Your task to perform on an android device: set the timer Image 0: 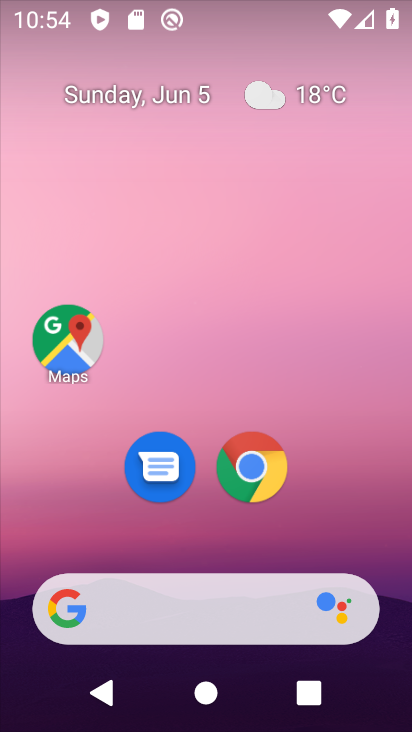
Step 0: drag from (202, 535) to (191, 76)
Your task to perform on an android device: set the timer Image 1: 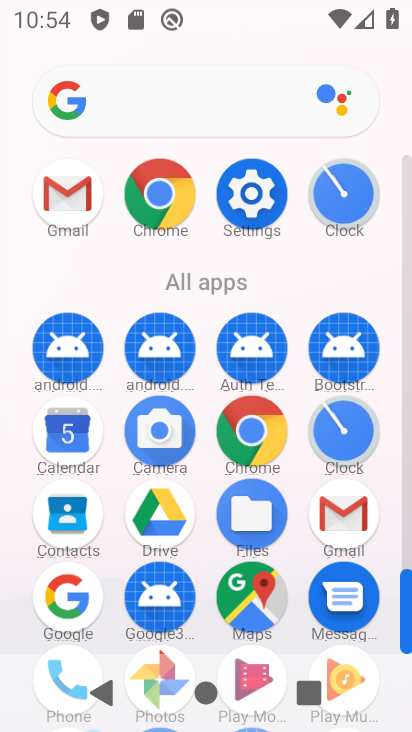
Step 1: click (355, 435)
Your task to perform on an android device: set the timer Image 2: 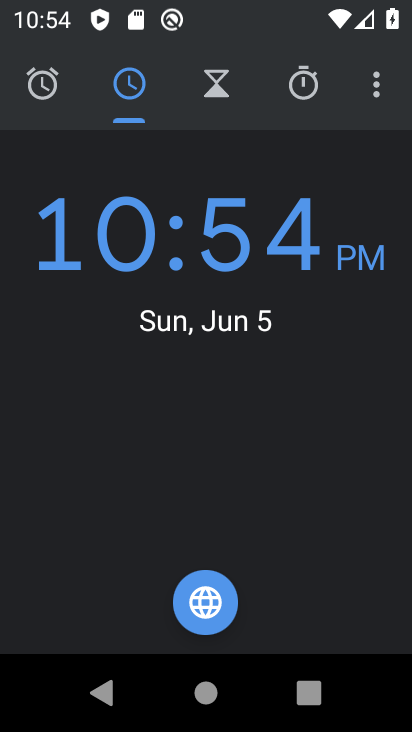
Step 2: click (385, 95)
Your task to perform on an android device: set the timer Image 3: 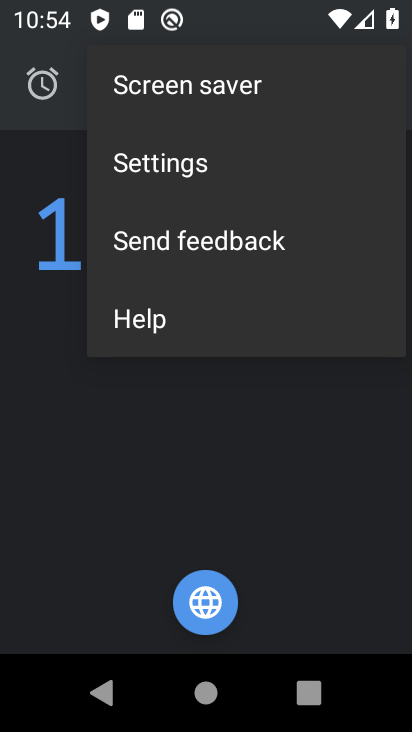
Step 3: click (201, 164)
Your task to perform on an android device: set the timer Image 4: 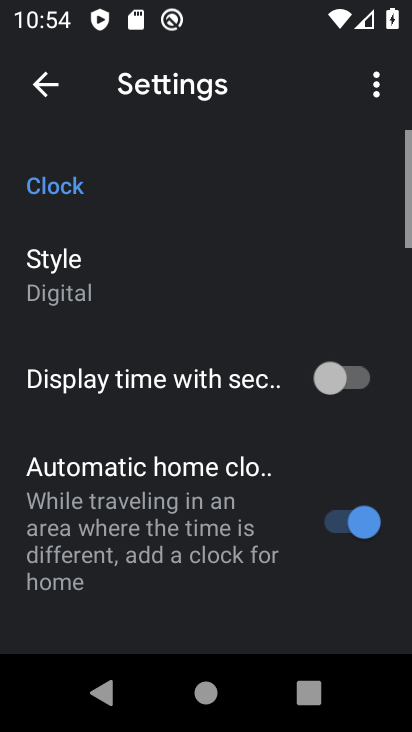
Step 4: drag from (202, 531) to (139, 29)
Your task to perform on an android device: set the timer Image 5: 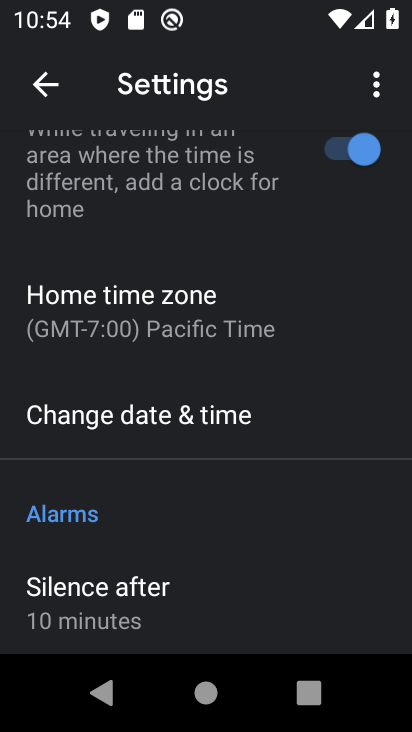
Step 5: drag from (85, 576) to (65, 20)
Your task to perform on an android device: set the timer Image 6: 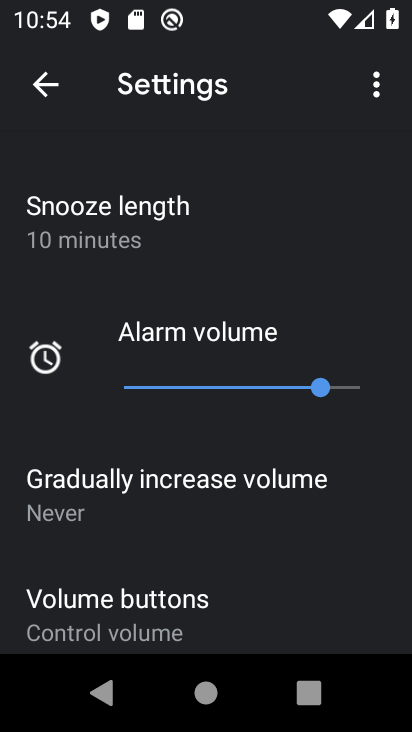
Step 6: drag from (154, 589) to (117, 84)
Your task to perform on an android device: set the timer Image 7: 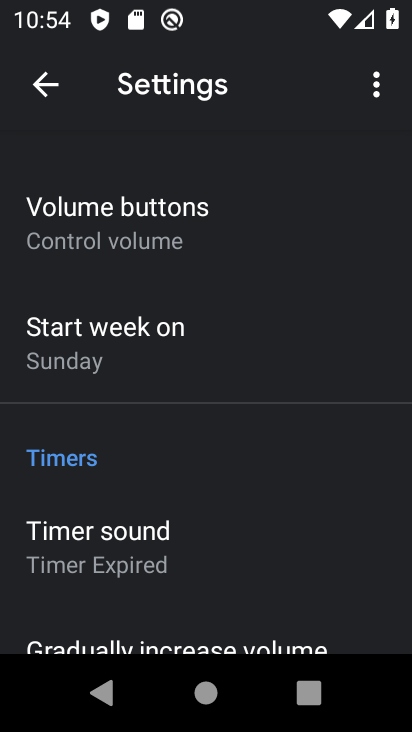
Step 7: click (106, 563)
Your task to perform on an android device: set the timer Image 8: 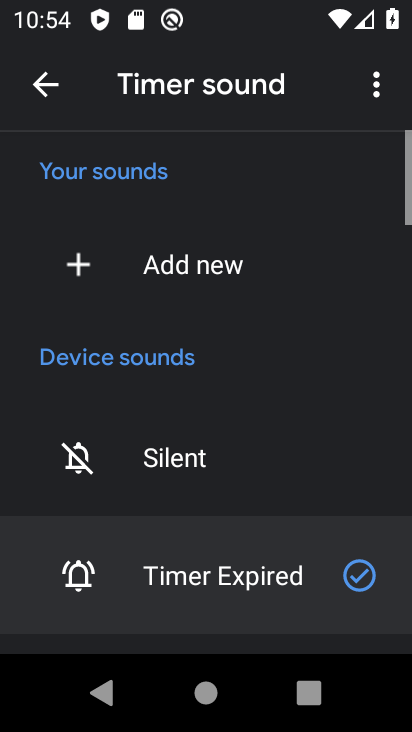
Step 8: click (29, 76)
Your task to perform on an android device: set the timer Image 9: 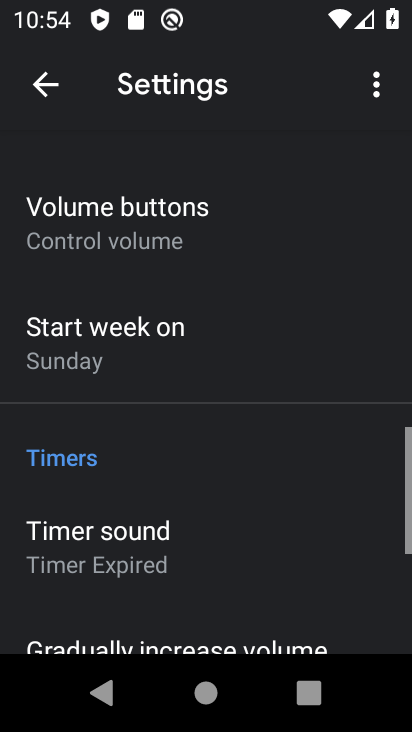
Step 9: click (29, 76)
Your task to perform on an android device: set the timer Image 10: 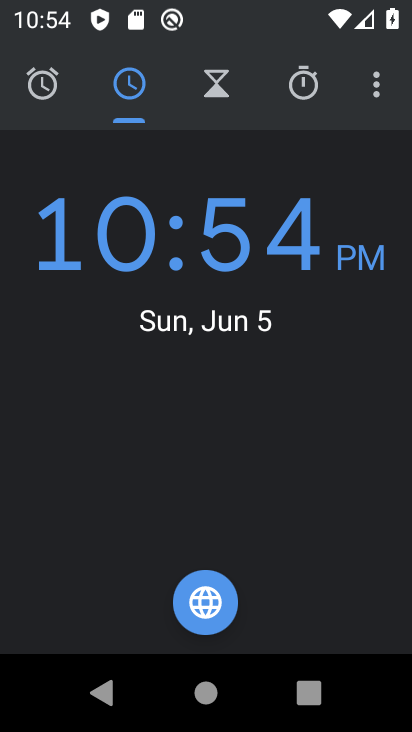
Step 10: click (228, 83)
Your task to perform on an android device: set the timer Image 11: 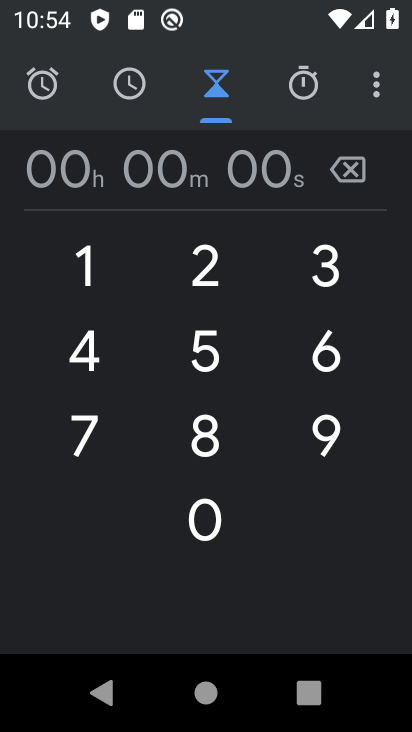
Step 11: click (226, 262)
Your task to perform on an android device: set the timer Image 12: 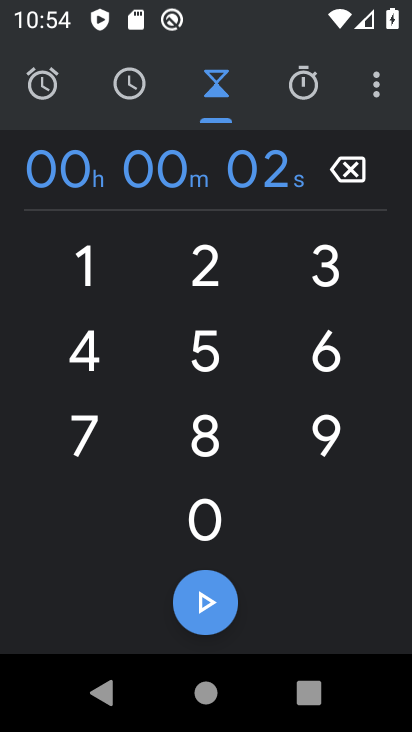
Step 12: click (209, 321)
Your task to perform on an android device: set the timer Image 13: 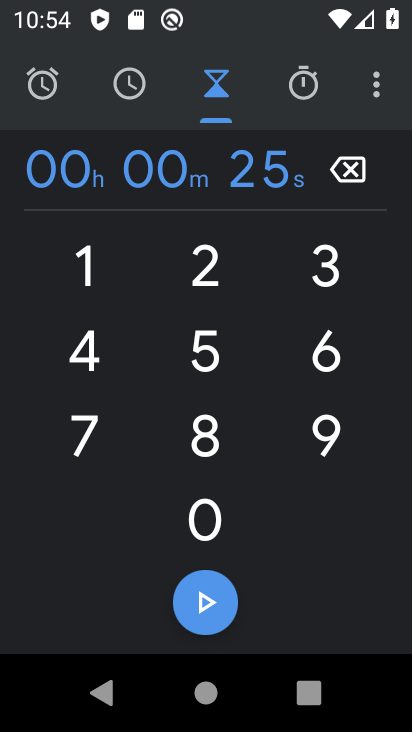
Step 13: click (204, 593)
Your task to perform on an android device: set the timer Image 14: 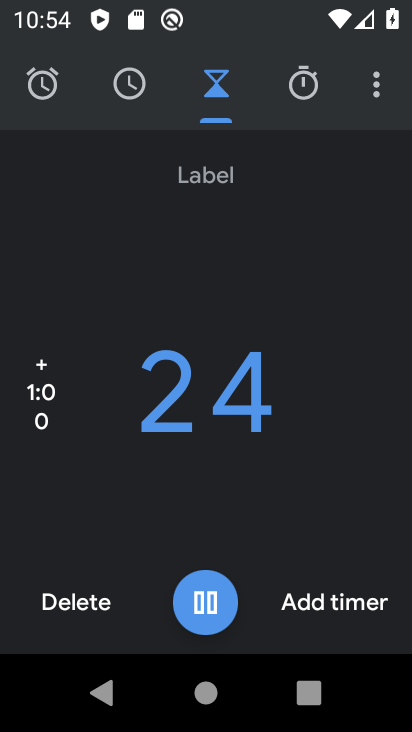
Step 14: task complete